Your task to perform on an android device: add a contact Image 0: 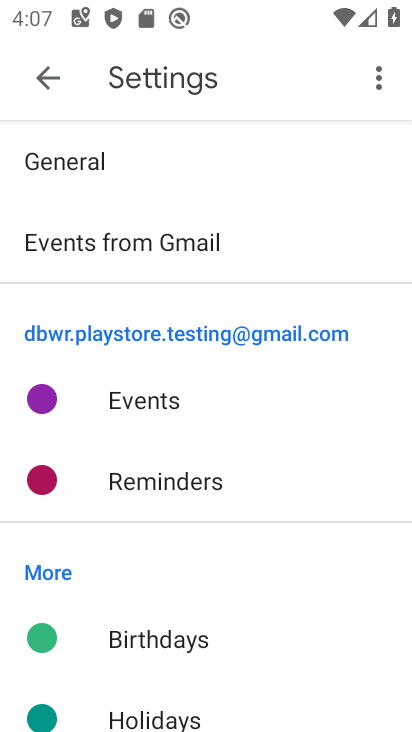
Step 0: press home button
Your task to perform on an android device: add a contact Image 1: 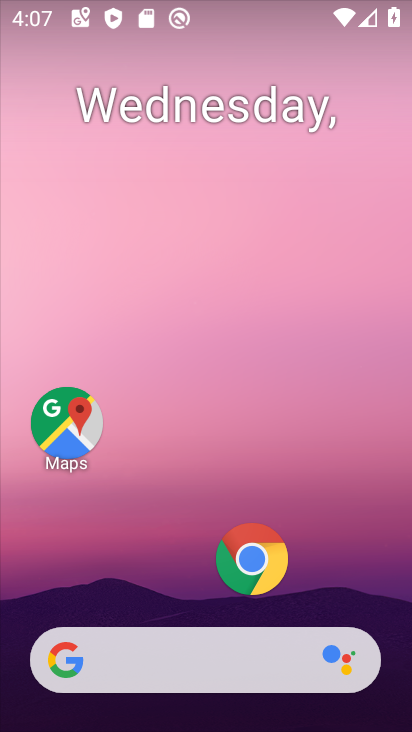
Step 1: drag from (159, 578) to (202, 127)
Your task to perform on an android device: add a contact Image 2: 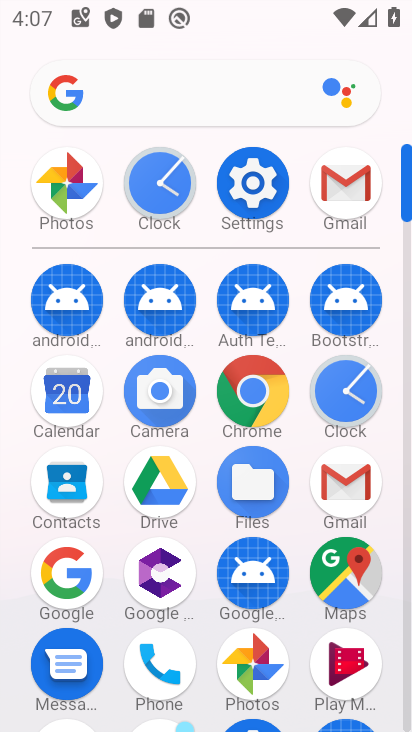
Step 2: click (68, 493)
Your task to perform on an android device: add a contact Image 3: 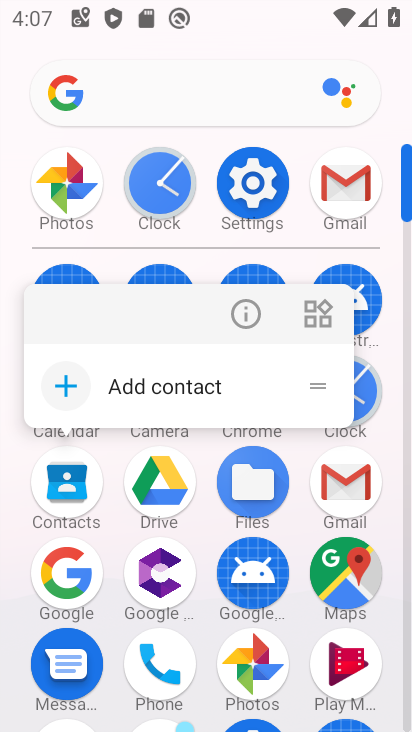
Step 3: click (159, 382)
Your task to perform on an android device: add a contact Image 4: 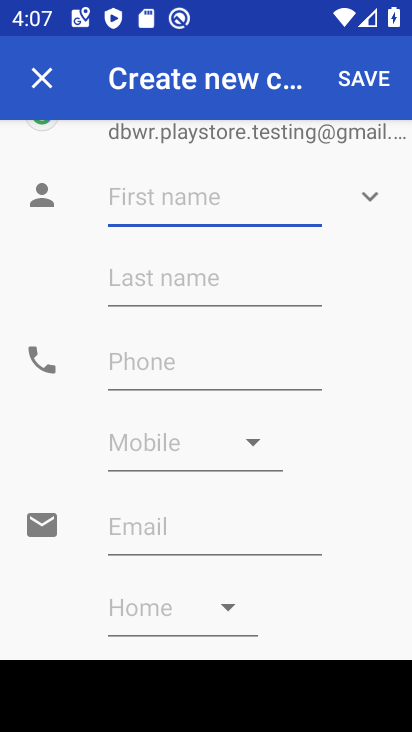
Step 4: type "dcdc"
Your task to perform on an android device: add a contact Image 5: 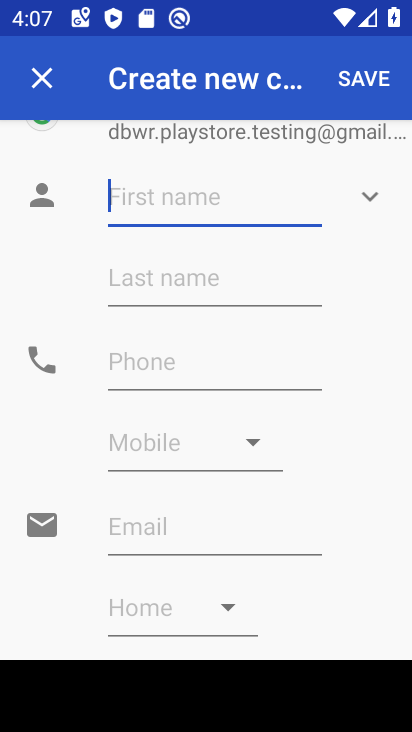
Step 5: click (114, 277)
Your task to perform on an android device: add a contact Image 6: 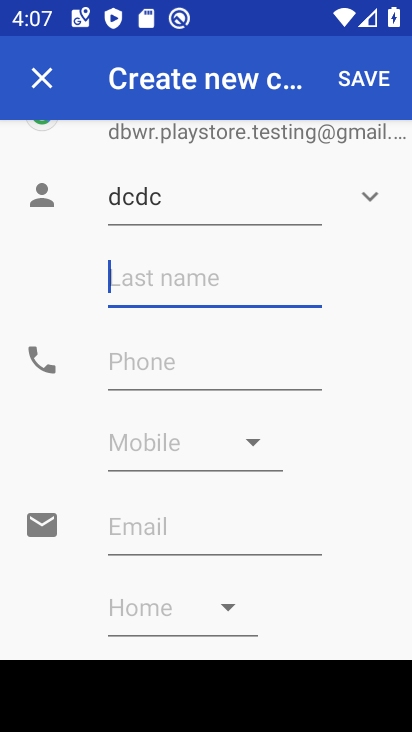
Step 6: type "sdcd"
Your task to perform on an android device: add a contact Image 7: 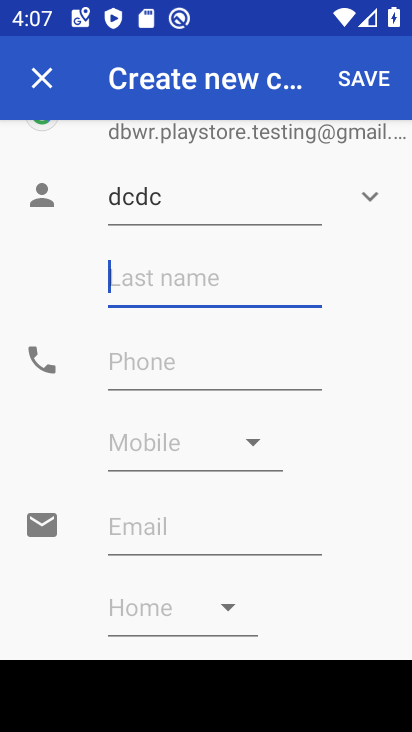
Step 7: click (193, 387)
Your task to perform on an android device: add a contact Image 8: 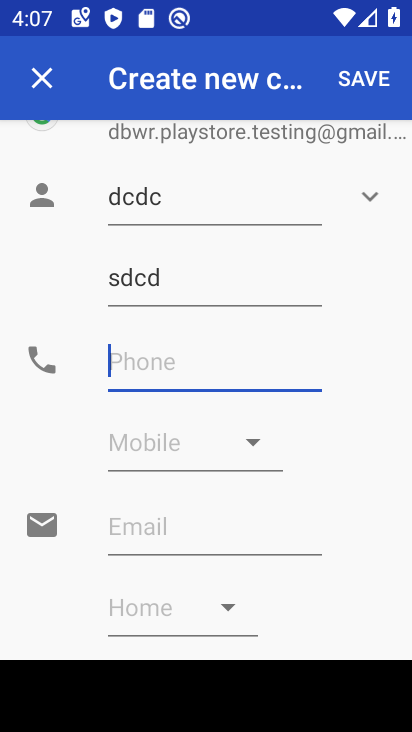
Step 8: type "23434"
Your task to perform on an android device: add a contact Image 9: 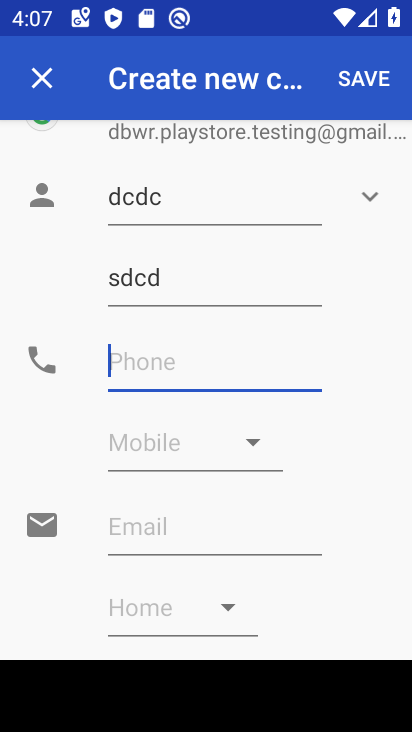
Step 9: click (169, 438)
Your task to perform on an android device: add a contact Image 10: 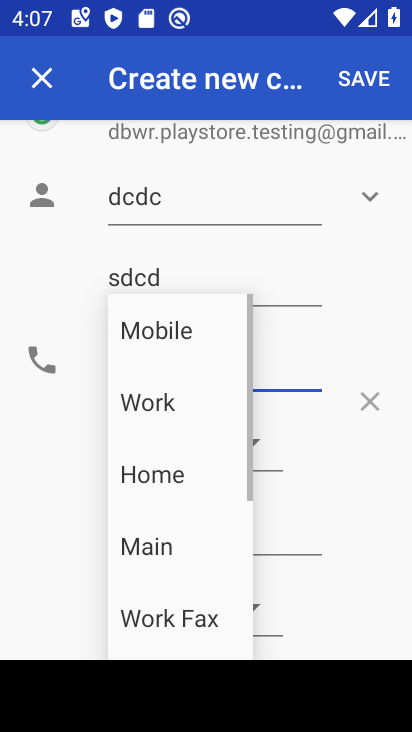
Step 10: click (387, 83)
Your task to perform on an android device: add a contact Image 11: 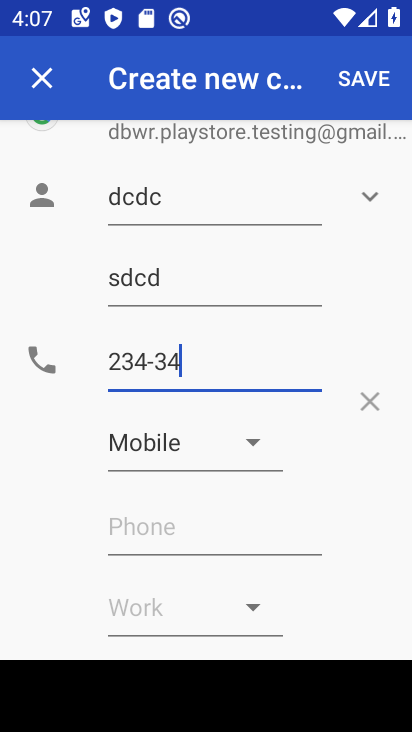
Step 11: click (363, 79)
Your task to perform on an android device: add a contact Image 12: 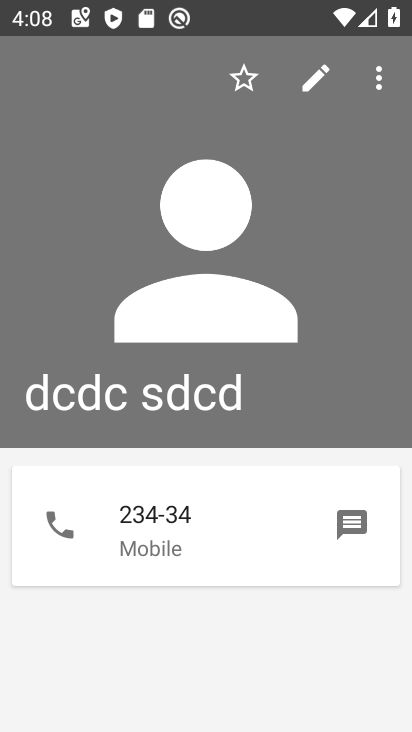
Step 12: task complete